Your task to perform on an android device: Search for vegetarian restaurants on Maps Image 0: 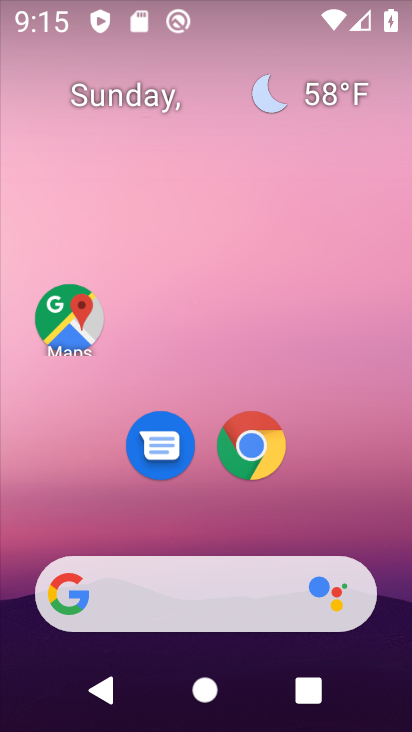
Step 0: click (66, 309)
Your task to perform on an android device: Search for vegetarian restaurants on Maps Image 1: 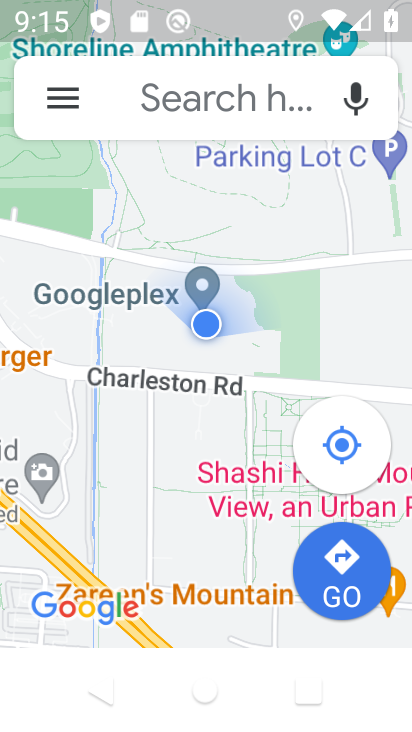
Step 1: click (221, 112)
Your task to perform on an android device: Search for vegetarian restaurants on Maps Image 2: 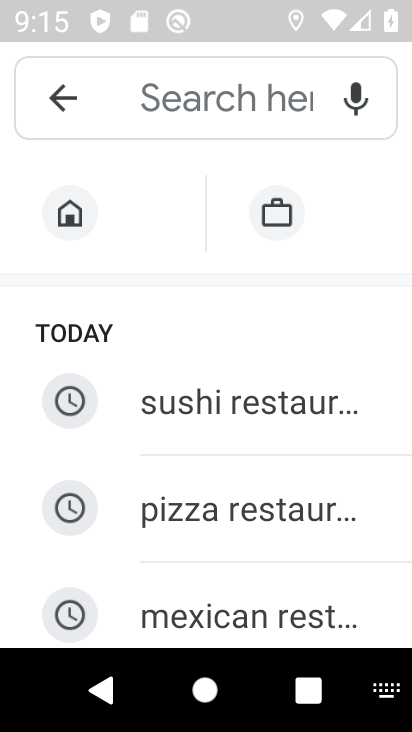
Step 2: type "vegetarian restaurants"
Your task to perform on an android device: Search for vegetarian restaurants on Maps Image 3: 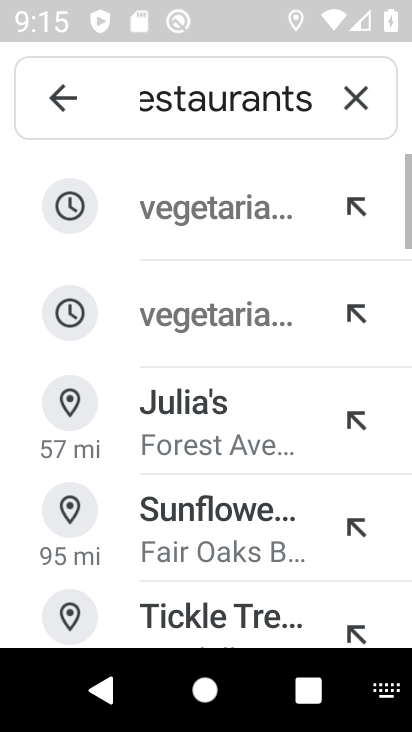
Step 3: click (209, 218)
Your task to perform on an android device: Search for vegetarian restaurants on Maps Image 4: 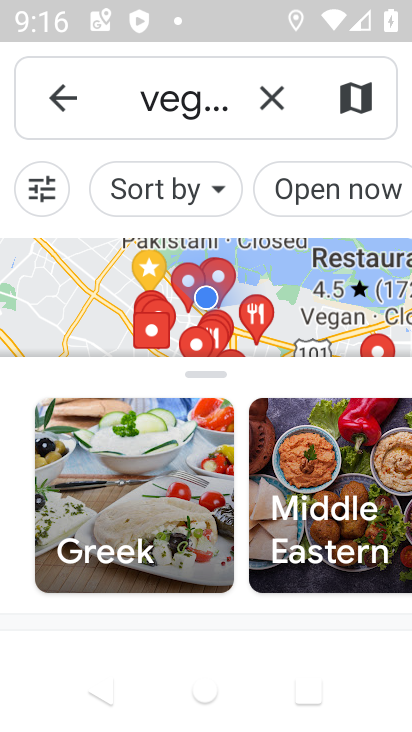
Step 4: task complete